Your task to perform on an android device: Go to Amazon Image 0: 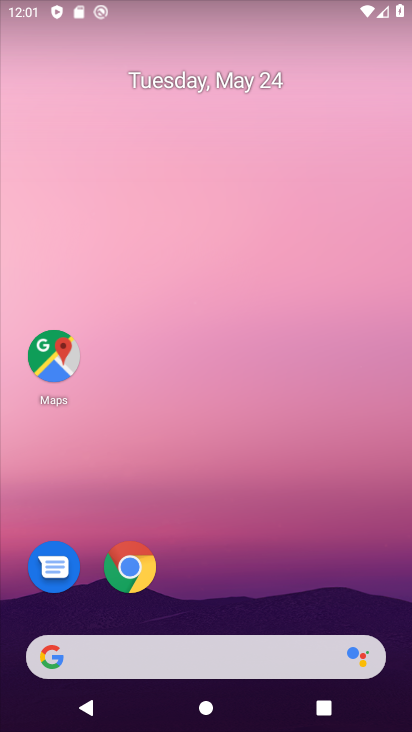
Step 0: click (145, 576)
Your task to perform on an android device: Go to Amazon Image 1: 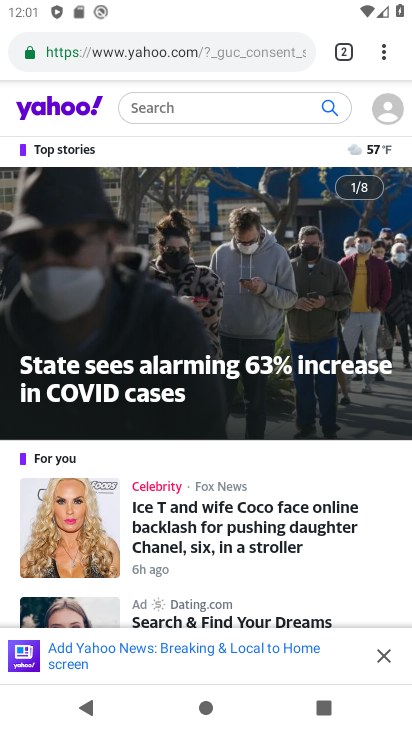
Step 1: click (341, 44)
Your task to perform on an android device: Go to Amazon Image 2: 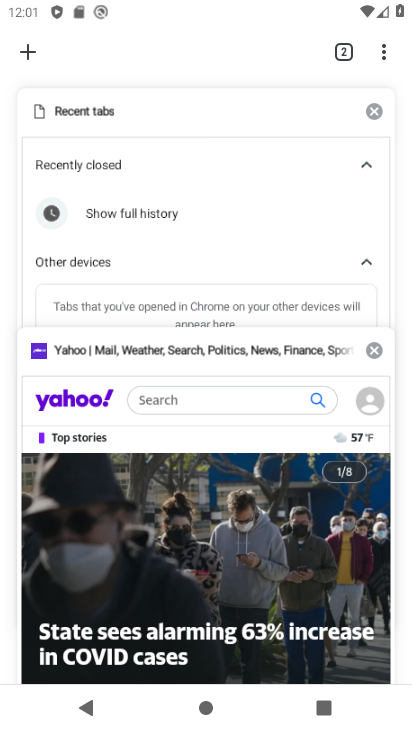
Step 2: click (25, 38)
Your task to perform on an android device: Go to Amazon Image 3: 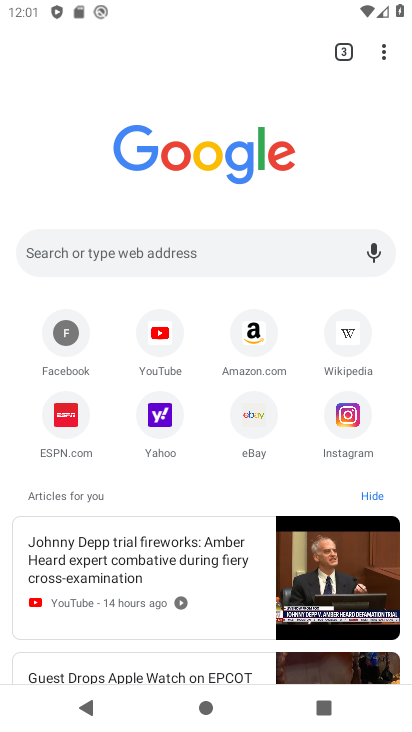
Step 3: click (261, 321)
Your task to perform on an android device: Go to Amazon Image 4: 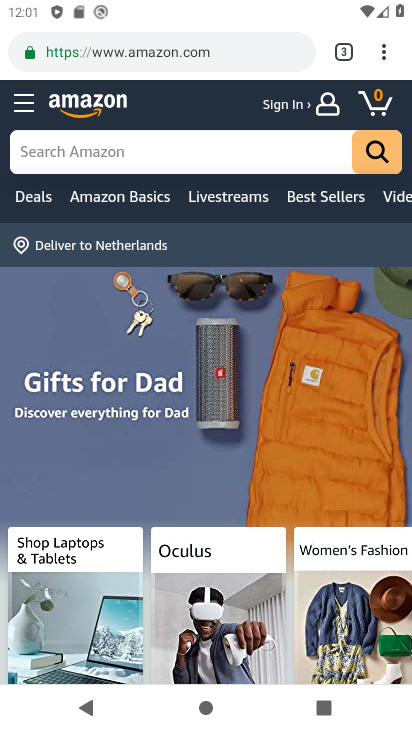
Step 4: task complete